Your task to perform on an android device: find photos in the google photos app Image 0: 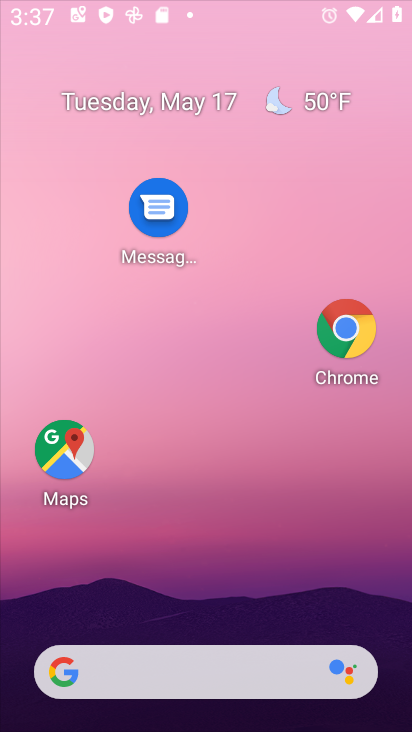
Step 0: click (306, 171)
Your task to perform on an android device: find photos in the google photos app Image 1: 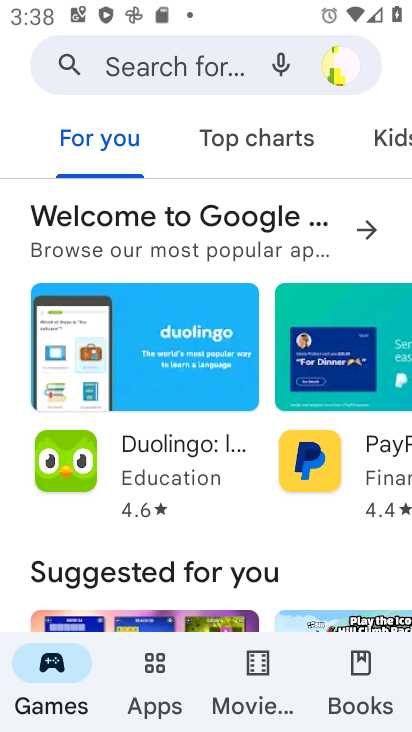
Step 1: press home button
Your task to perform on an android device: find photos in the google photos app Image 2: 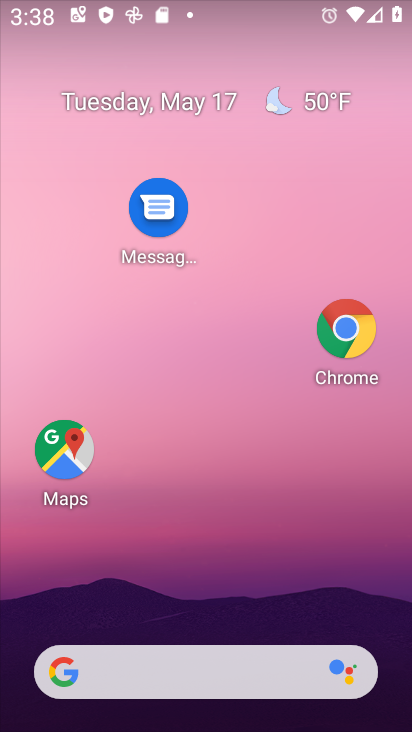
Step 2: drag from (193, 546) to (275, 119)
Your task to perform on an android device: find photos in the google photos app Image 3: 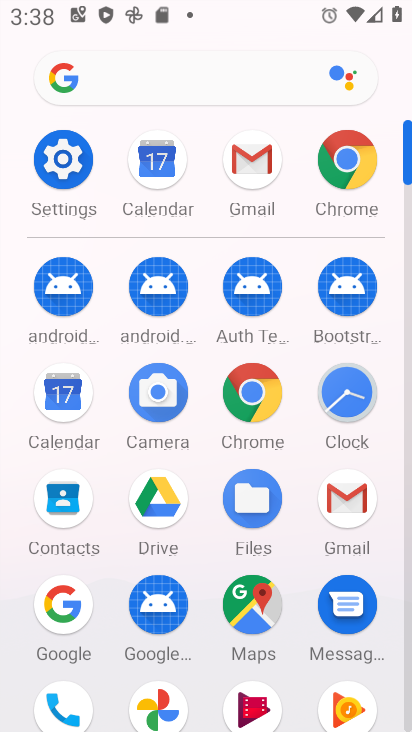
Step 3: click (166, 714)
Your task to perform on an android device: find photos in the google photos app Image 4: 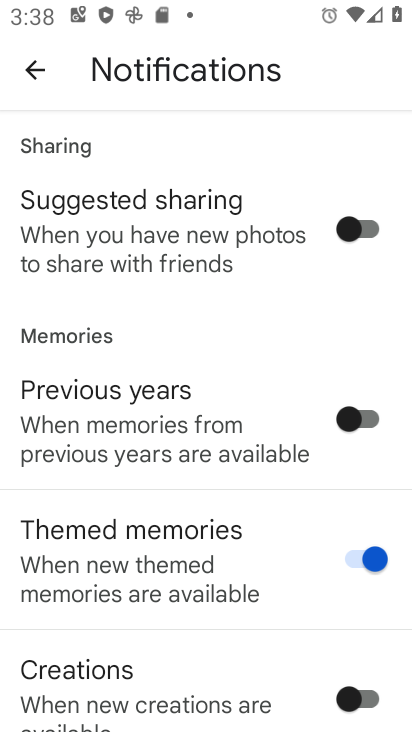
Step 4: click (29, 72)
Your task to perform on an android device: find photos in the google photos app Image 5: 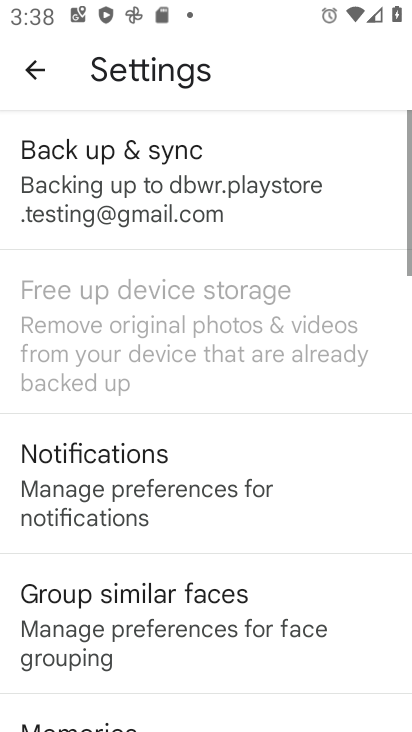
Step 5: click (29, 72)
Your task to perform on an android device: find photos in the google photos app Image 6: 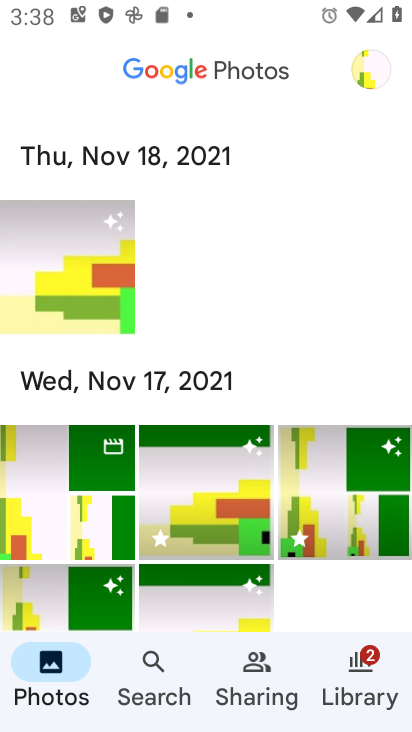
Step 6: task complete